Your task to perform on an android device: Open the calendar and show me this week's events? Image 0: 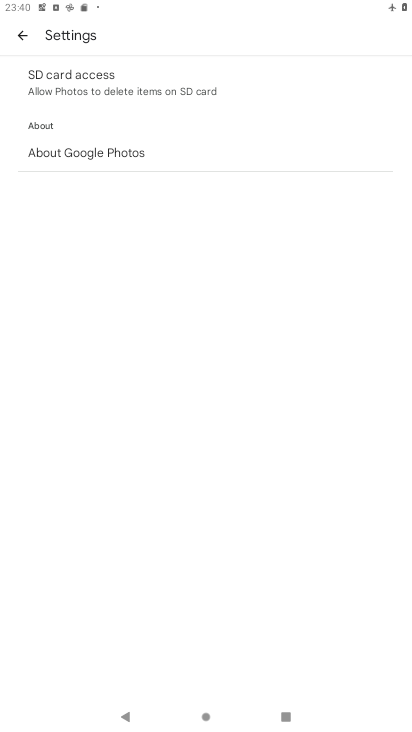
Step 0: press back button
Your task to perform on an android device: Open the calendar and show me this week's events? Image 1: 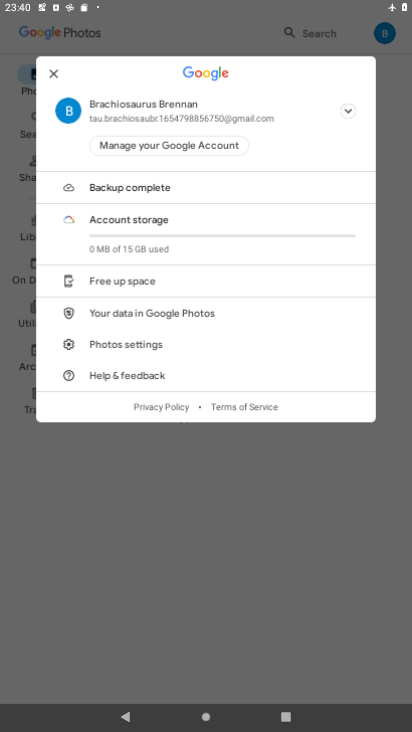
Step 1: press home button
Your task to perform on an android device: Open the calendar and show me this week's events? Image 2: 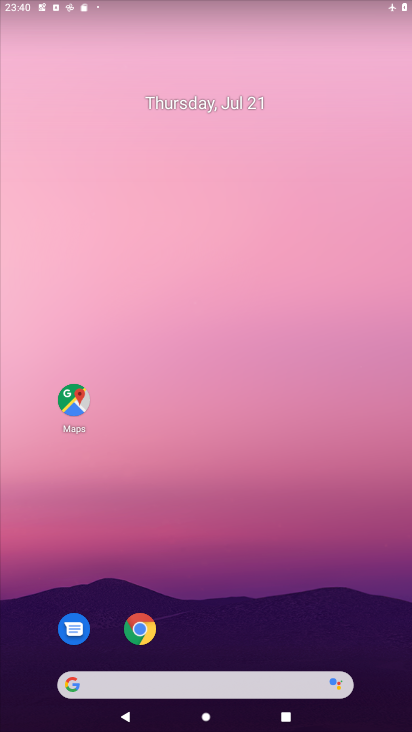
Step 2: drag from (301, 497) to (267, 69)
Your task to perform on an android device: Open the calendar and show me this week's events? Image 3: 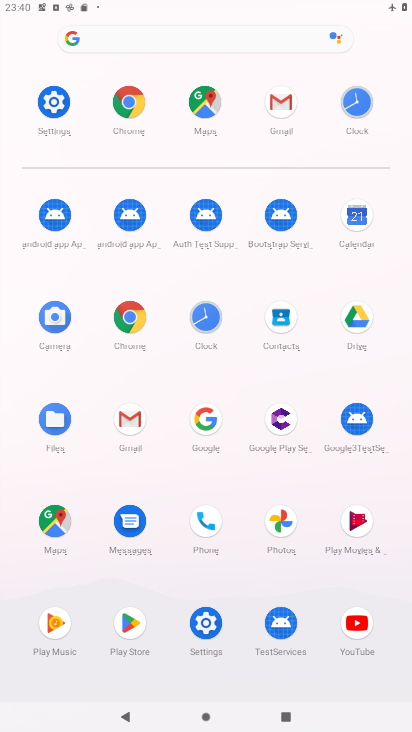
Step 3: click (352, 223)
Your task to perform on an android device: Open the calendar and show me this week's events? Image 4: 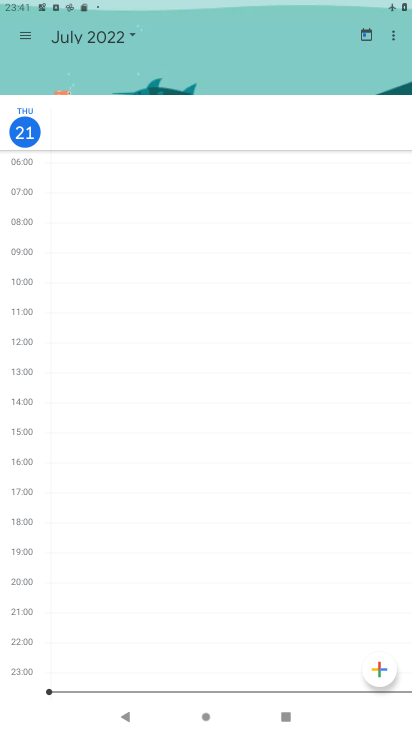
Step 4: click (117, 43)
Your task to perform on an android device: Open the calendar and show me this week's events? Image 5: 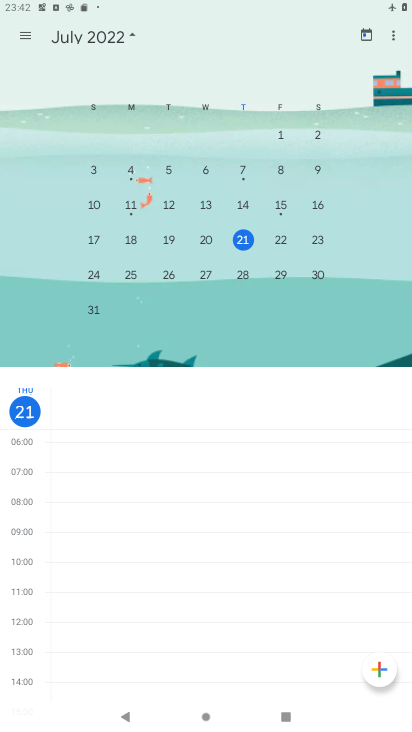
Step 5: click (32, 37)
Your task to perform on an android device: Open the calendar and show me this week's events? Image 6: 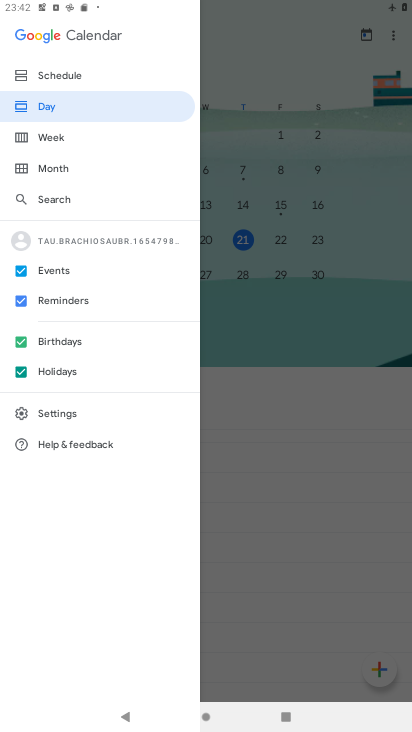
Step 6: click (78, 140)
Your task to perform on an android device: Open the calendar and show me this week's events? Image 7: 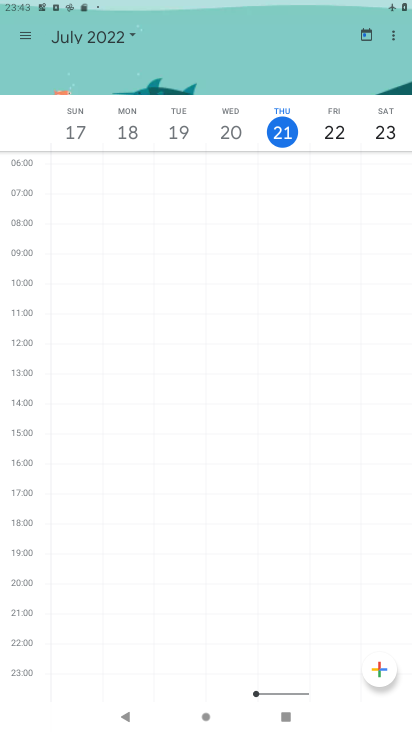
Step 7: task complete